Your task to perform on an android device: clear history in the chrome app Image 0: 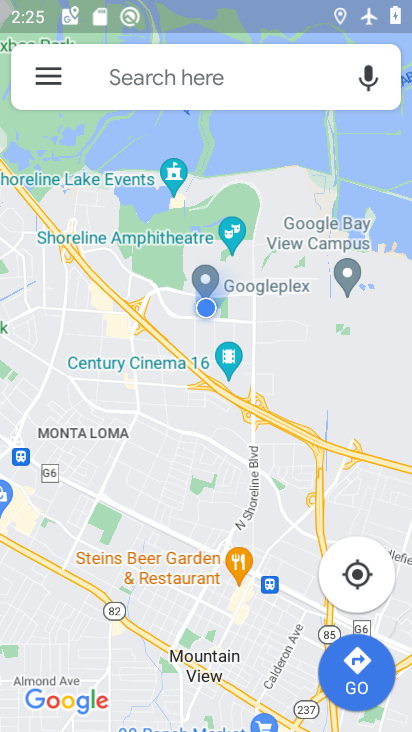
Step 0: press home button
Your task to perform on an android device: clear history in the chrome app Image 1: 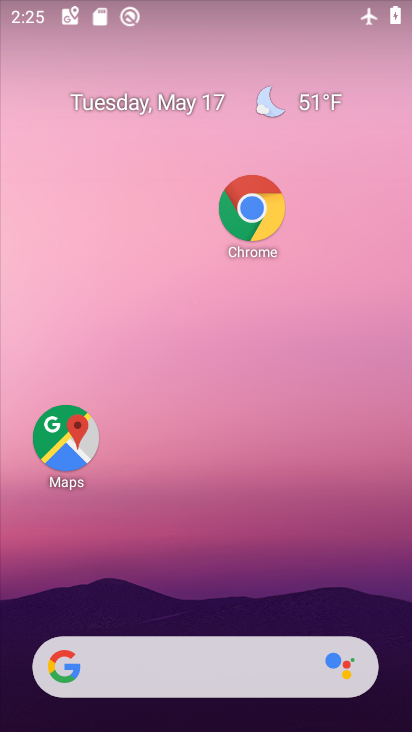
Step 1: click (254, 221)
Your task to perform on an android device: clear history in the chrome app Image 2: 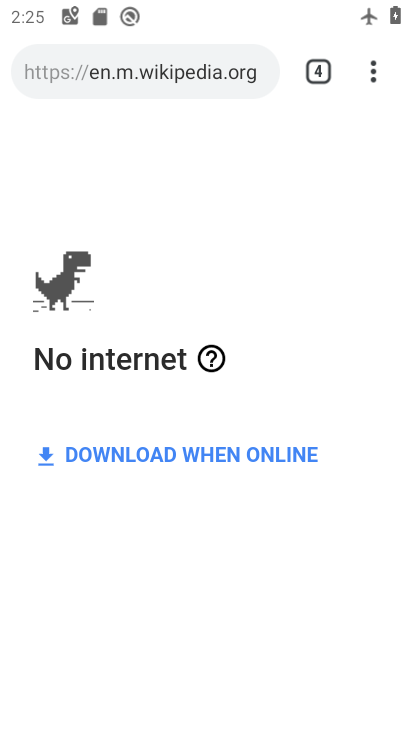
Step 2: click (364, 67)
Your task to perform on an android device: clear history in the chrome app Image 3: 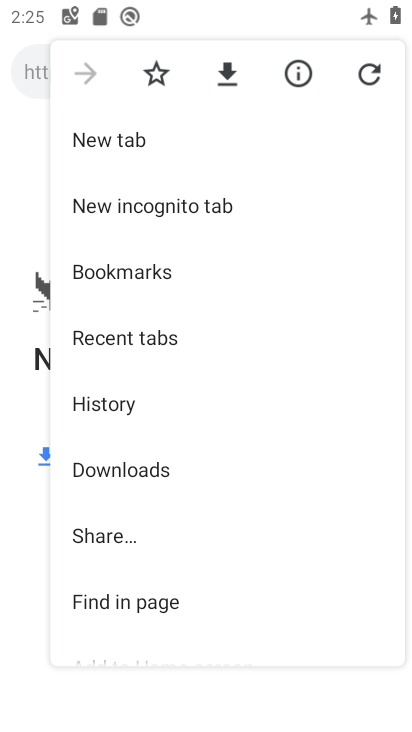
Step 3: click (100, 415)
Your task to perform on an android device: clear history in the chrome app Image 4: 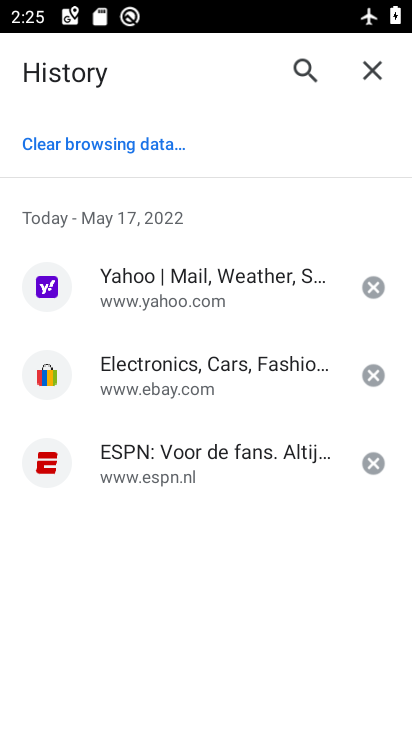
Step 4: click (97, 161)
Your task to perform on an android device: clear history in the chrome app Image 5: 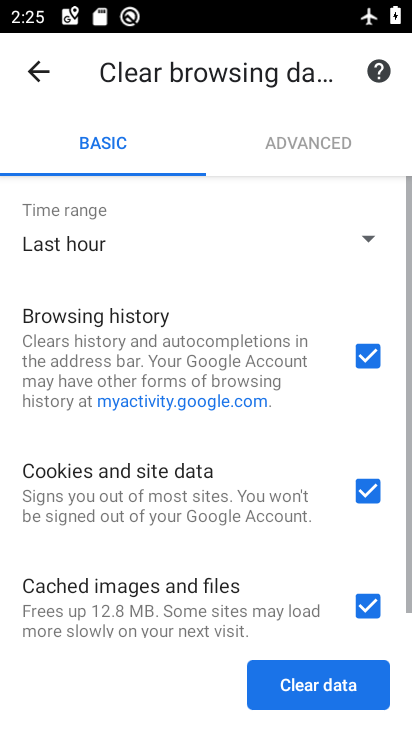
Step 5: click (318, 684)
Your task to perform on an android device: clear history in the chrome app Image 6: 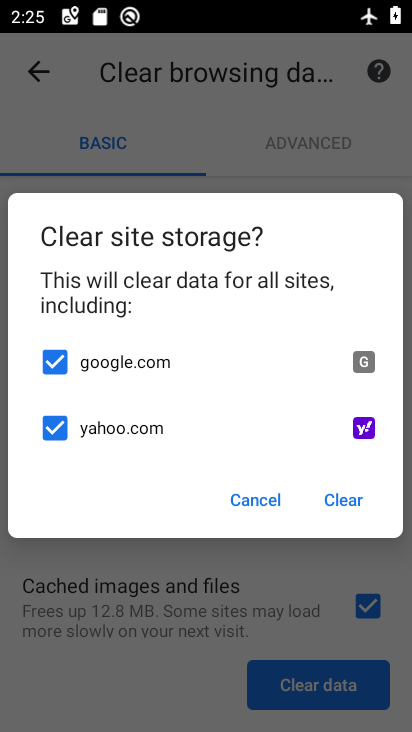
Step 6: click (327, 498)
Your task to perform on an android device: clear history in the chrome app Image 7: 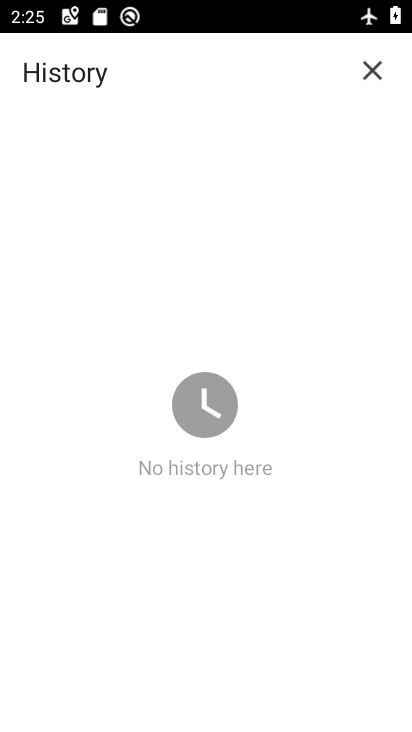
Step 7: task complete